Your task to perform on an android device: Open Yahoo.com Image 0: 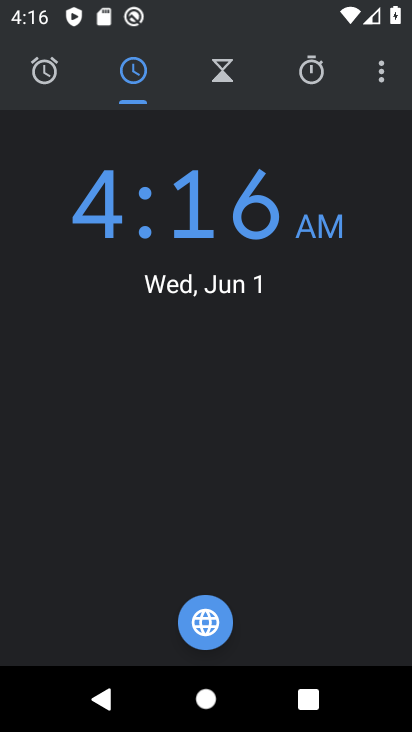
Step 0: press home button
Your task to perform on an android device: Open Yahoo.com Image 1: 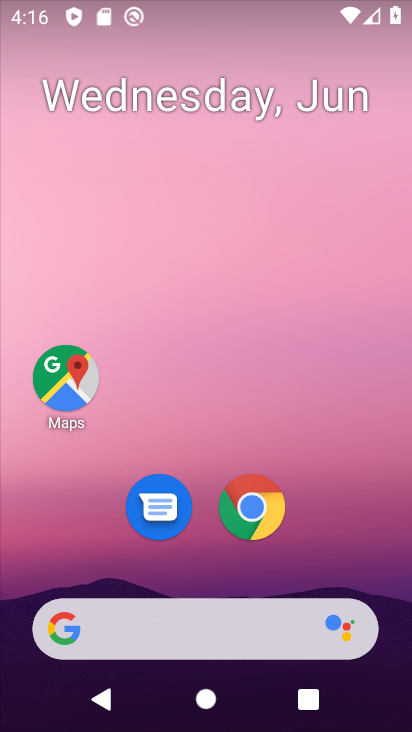
Step 1: click (243, 519)
Your task to perform on an android device: Open Yahoo.com Image 2: 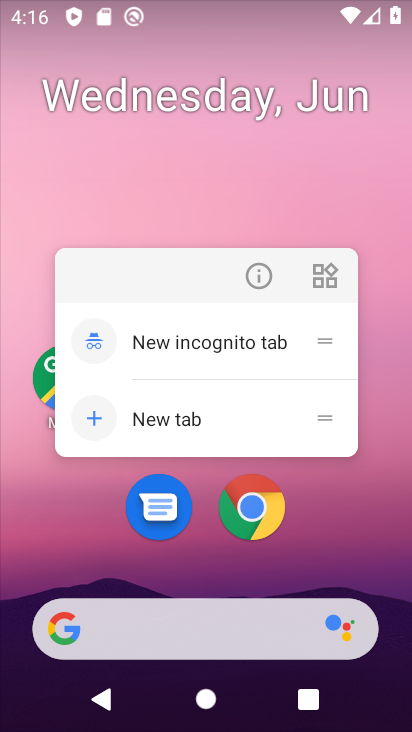
Step 2: click (256, 522)
Your task to perform on an android device: Open Yahoo.com Image 3: 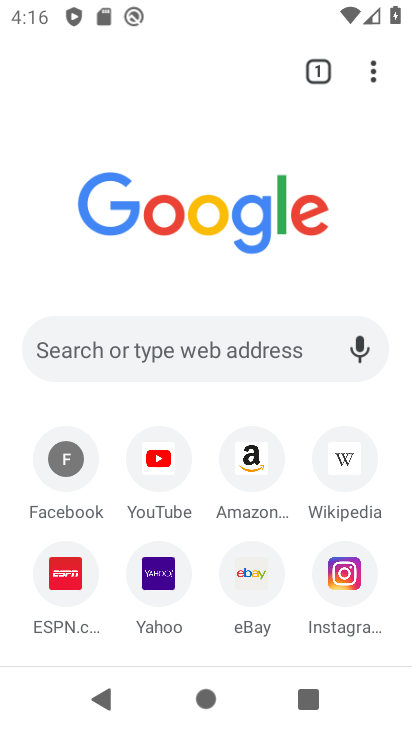
Step 3: click (170, 591)
Your task to perform on an android device: Open Yahoo.com Image 4: 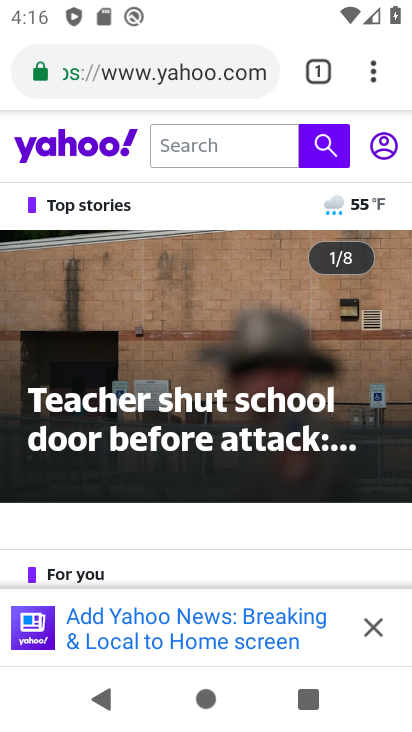
Step 4: task complete